Your task to perform on an android device: star an email in the gmail app Image 0: 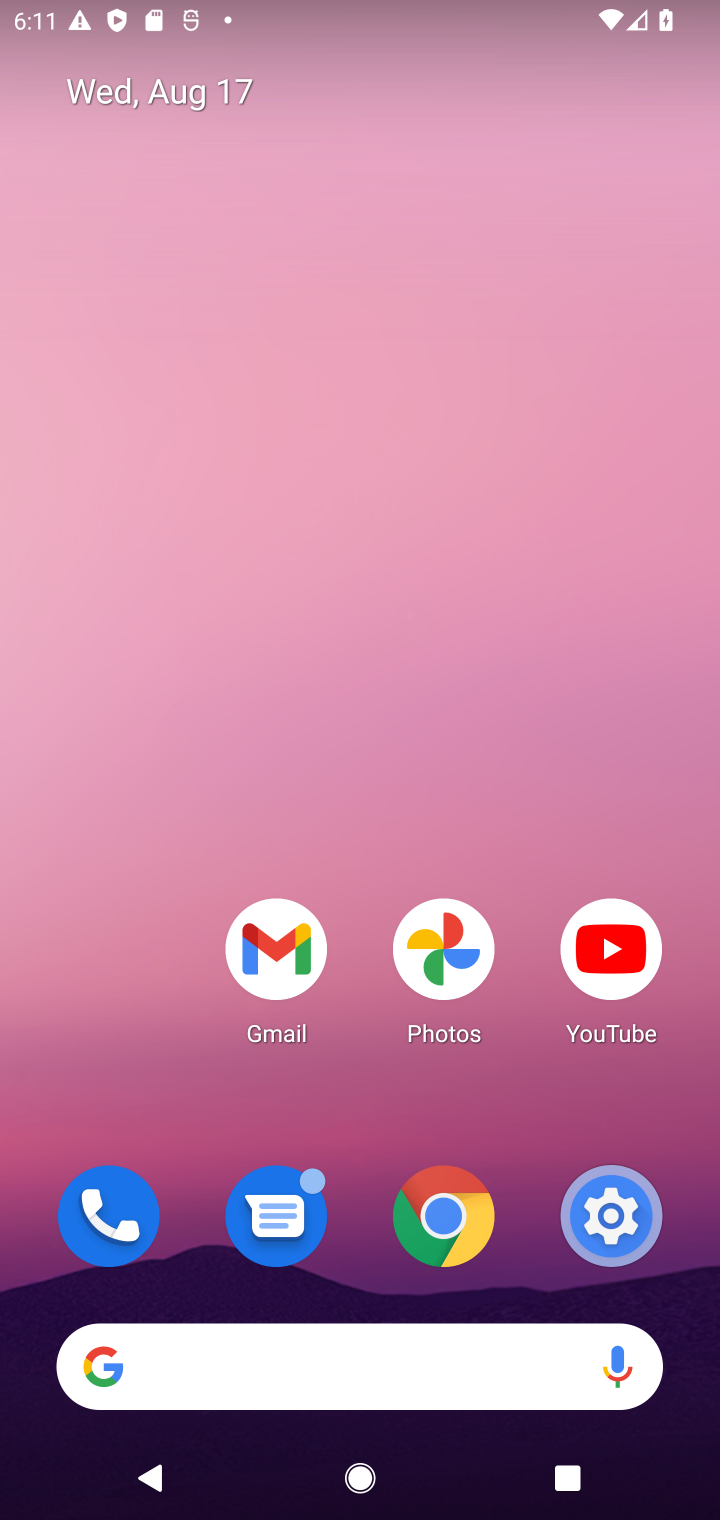
Step 0: drag from (506, 1260) to (578, 12)
Your task to perform on an android device: star an email in the gmail app Image 1: 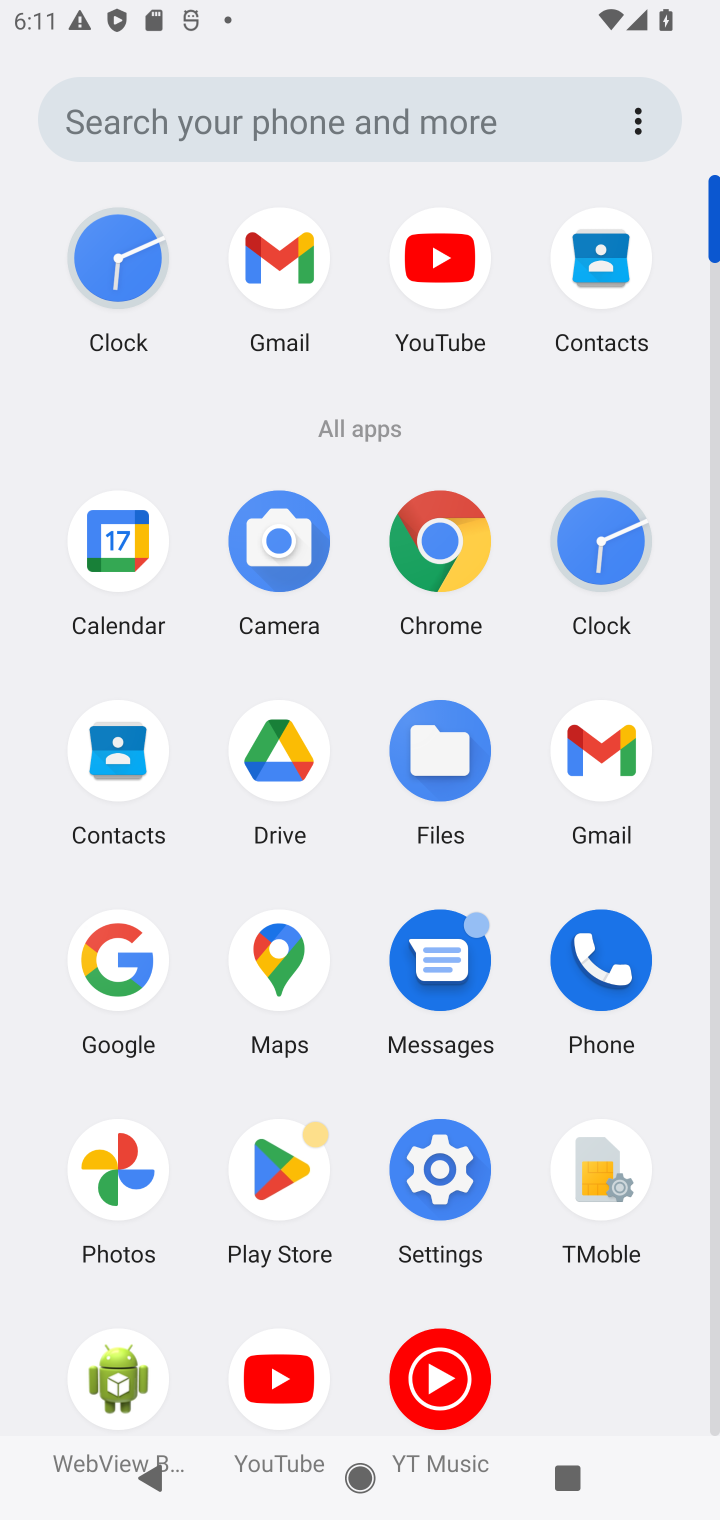
Step 1: click (615, 735)
Your task to perform on an android device: star an email in the gmail app Image 2: 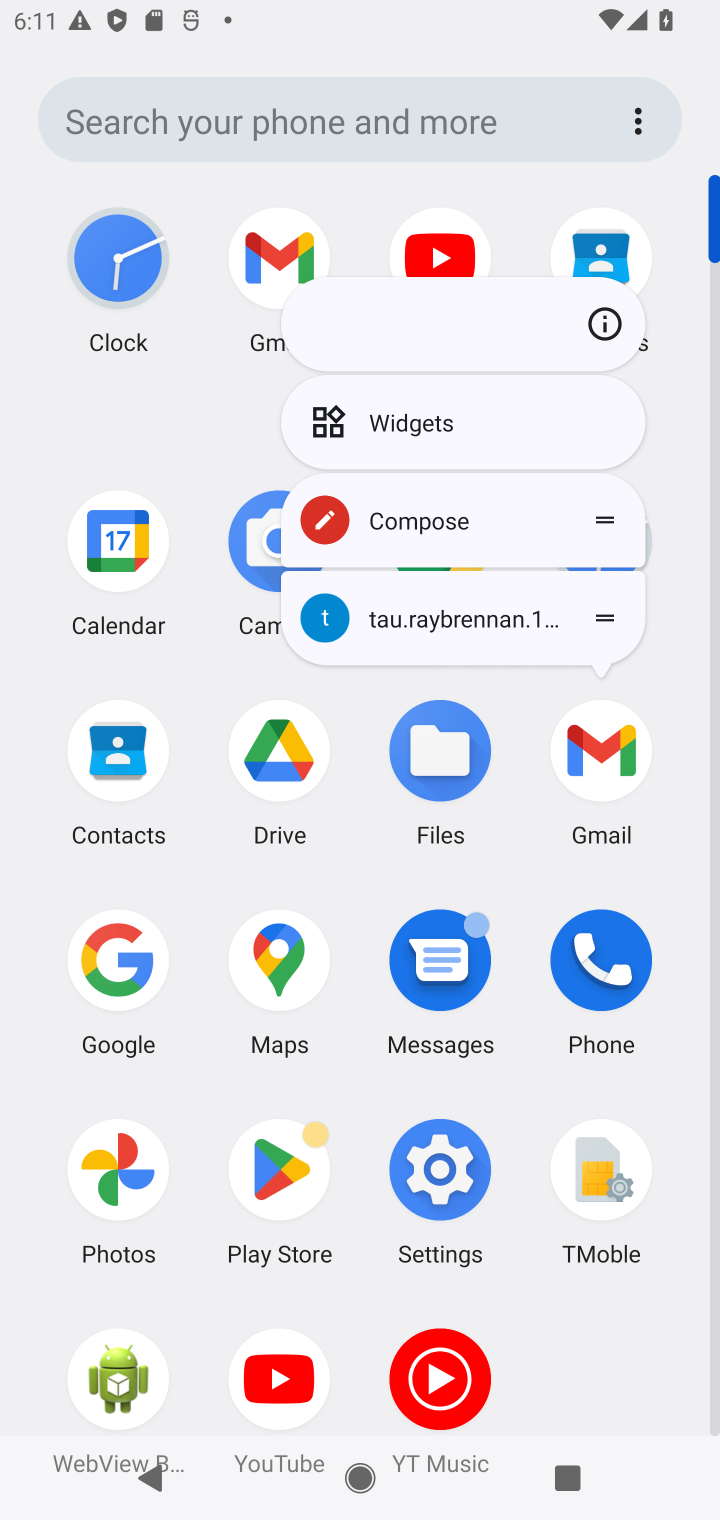
Step 2: click (609, 761)
Your task to perform on an android device: star an email in the gmail app Image 3: 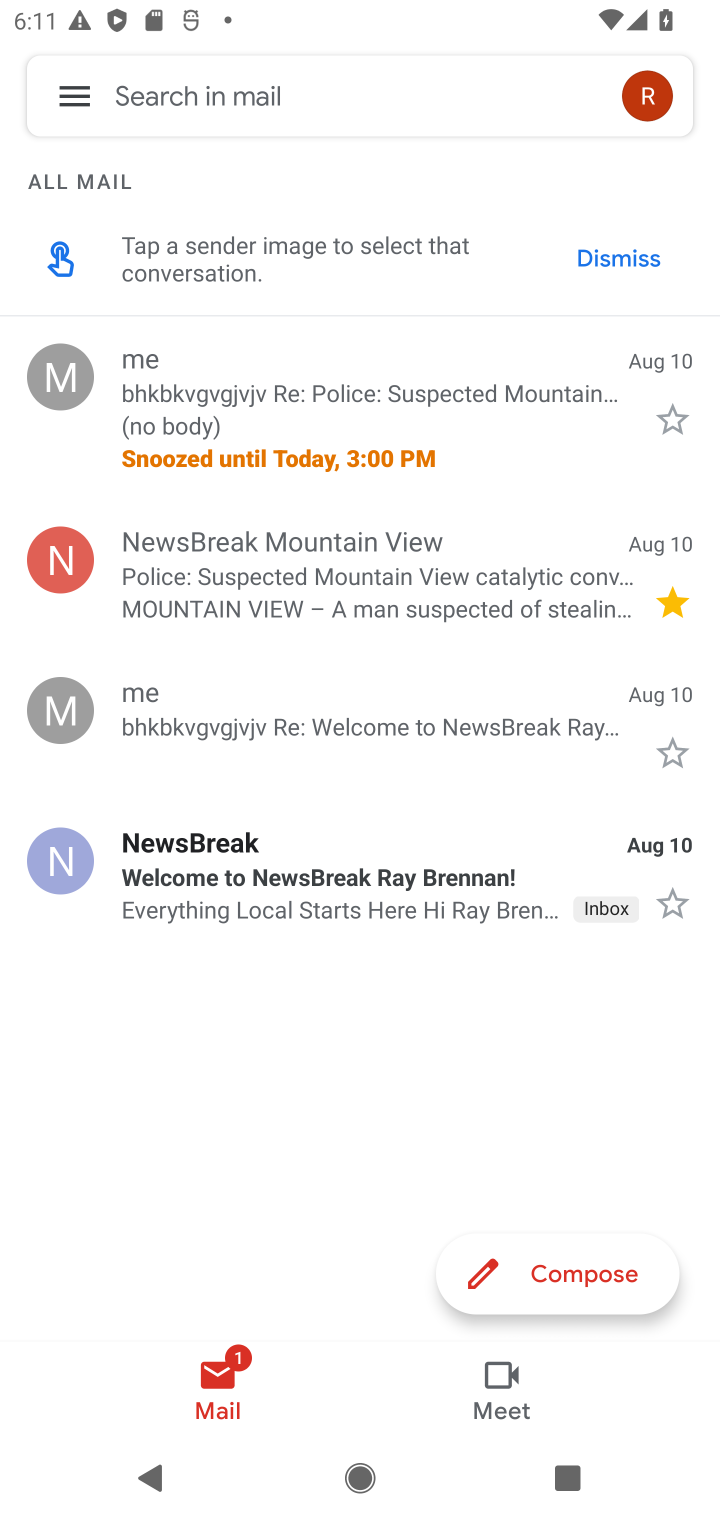
Step 3: click (72, 117)
Your task to perform on an android device: star an email in the gmail app Image 4: 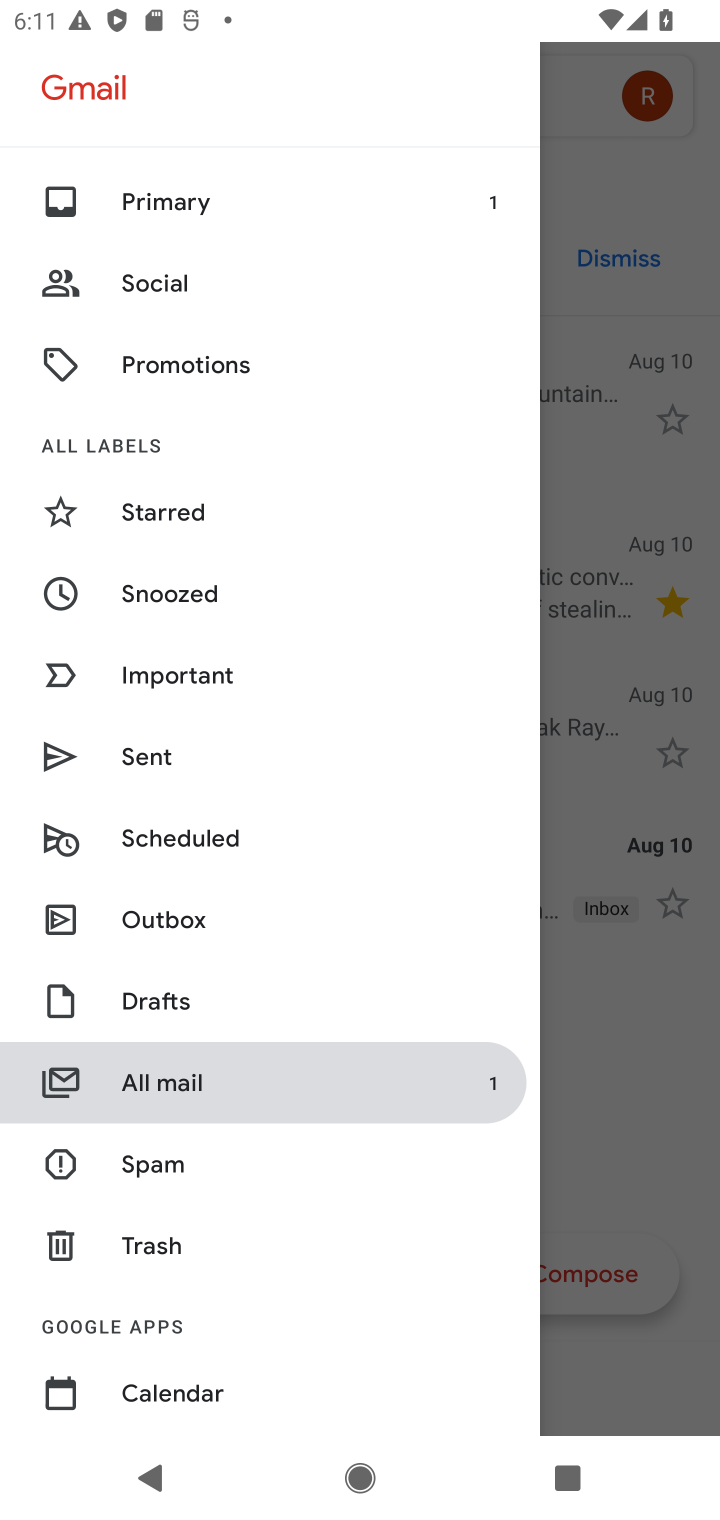
Step 4: click (137, 1079)
Your task to perform on an android device: star an email in the gmail app Image 5: 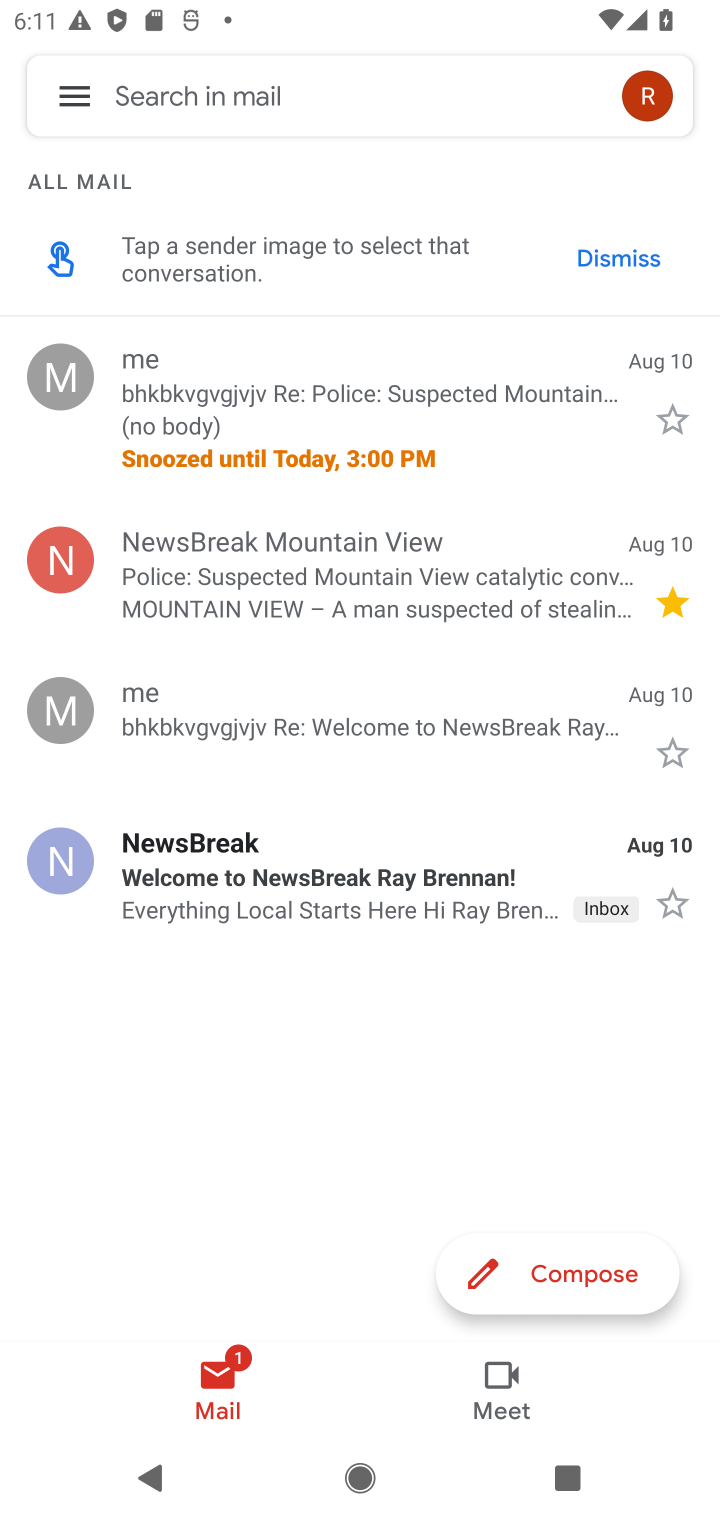
Step 5: click (671, 416)
Your task to perform on an android device: star an email in the gmail app Image 6: 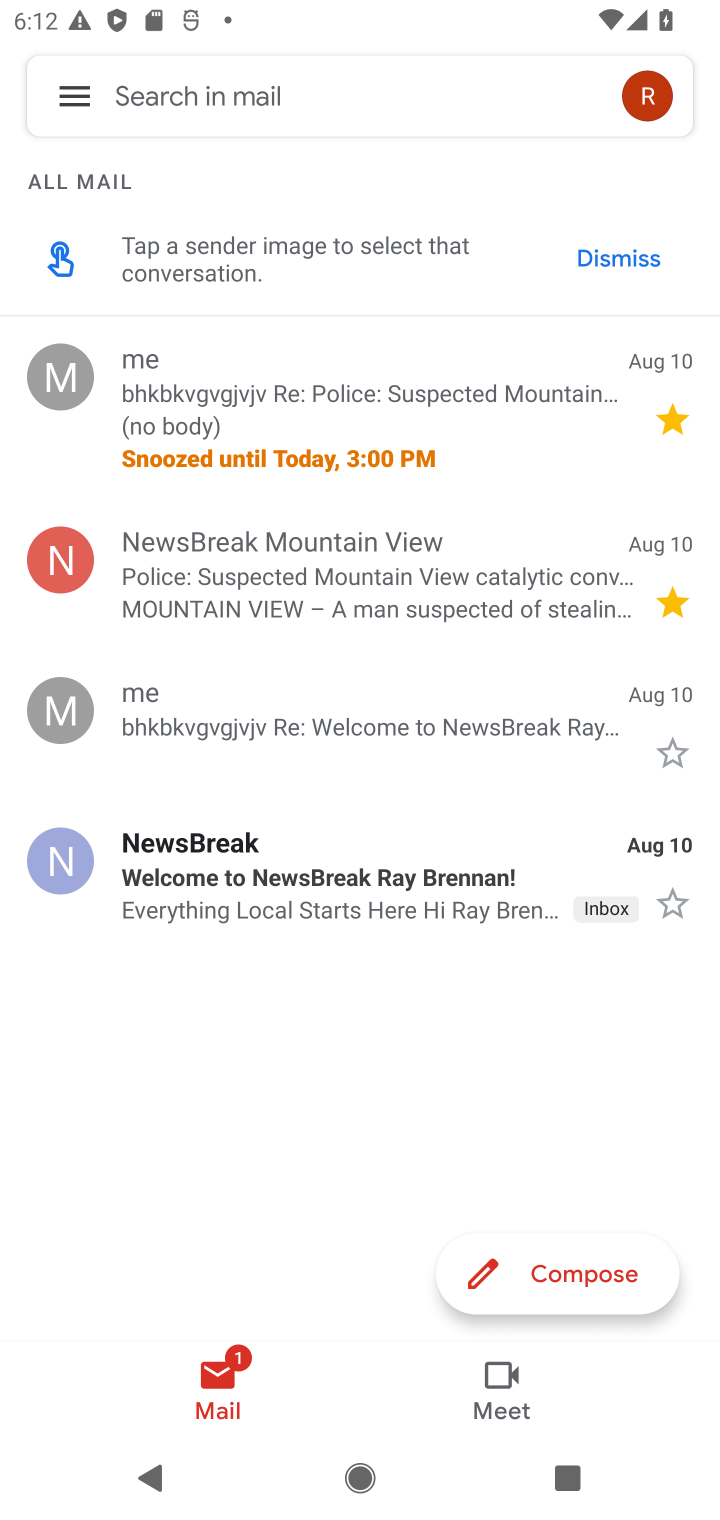
Step 6: click (673, 748)
Your task to perform on an android device: star an email in the gmail app Image 7: 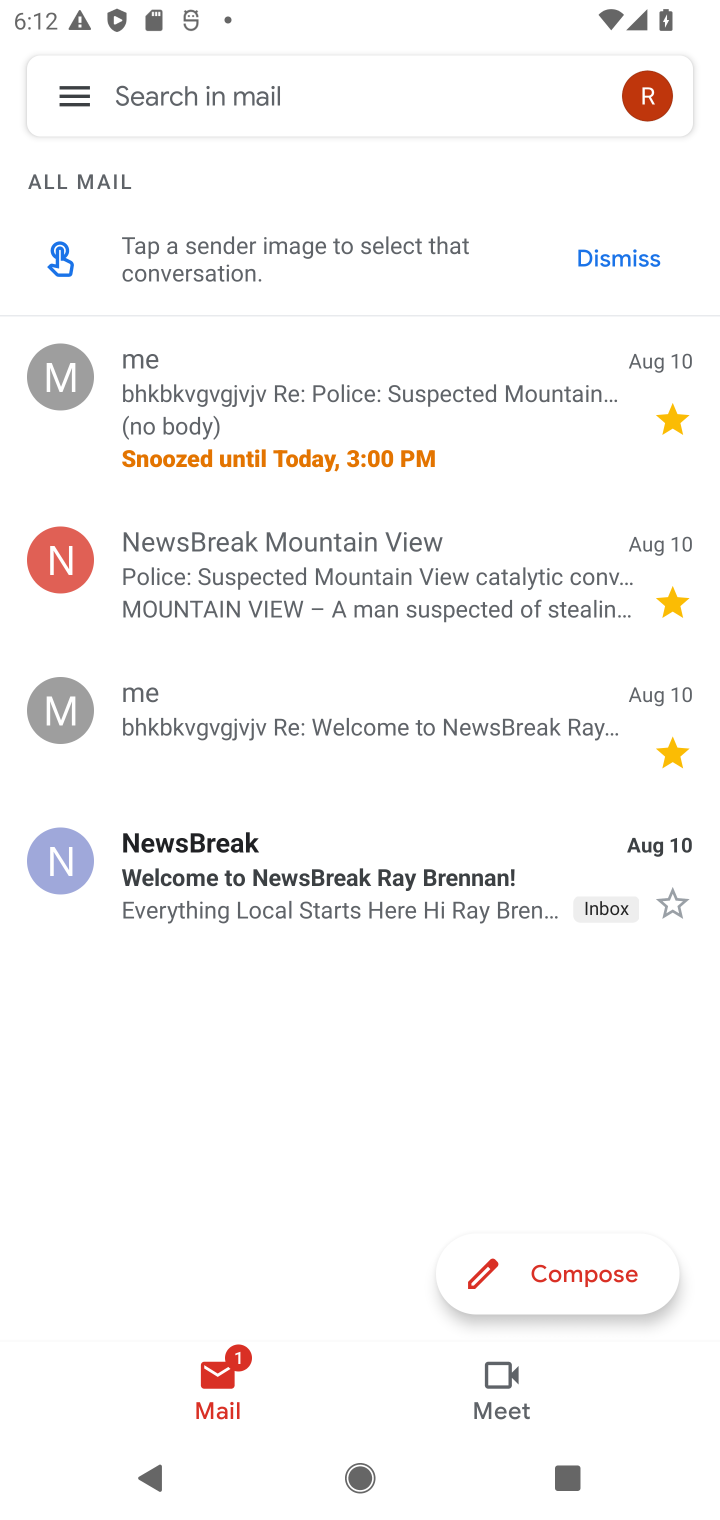
Step 7: click (672, 897)
Your task to perform on an android device: star an email in the gmail app Image 8: 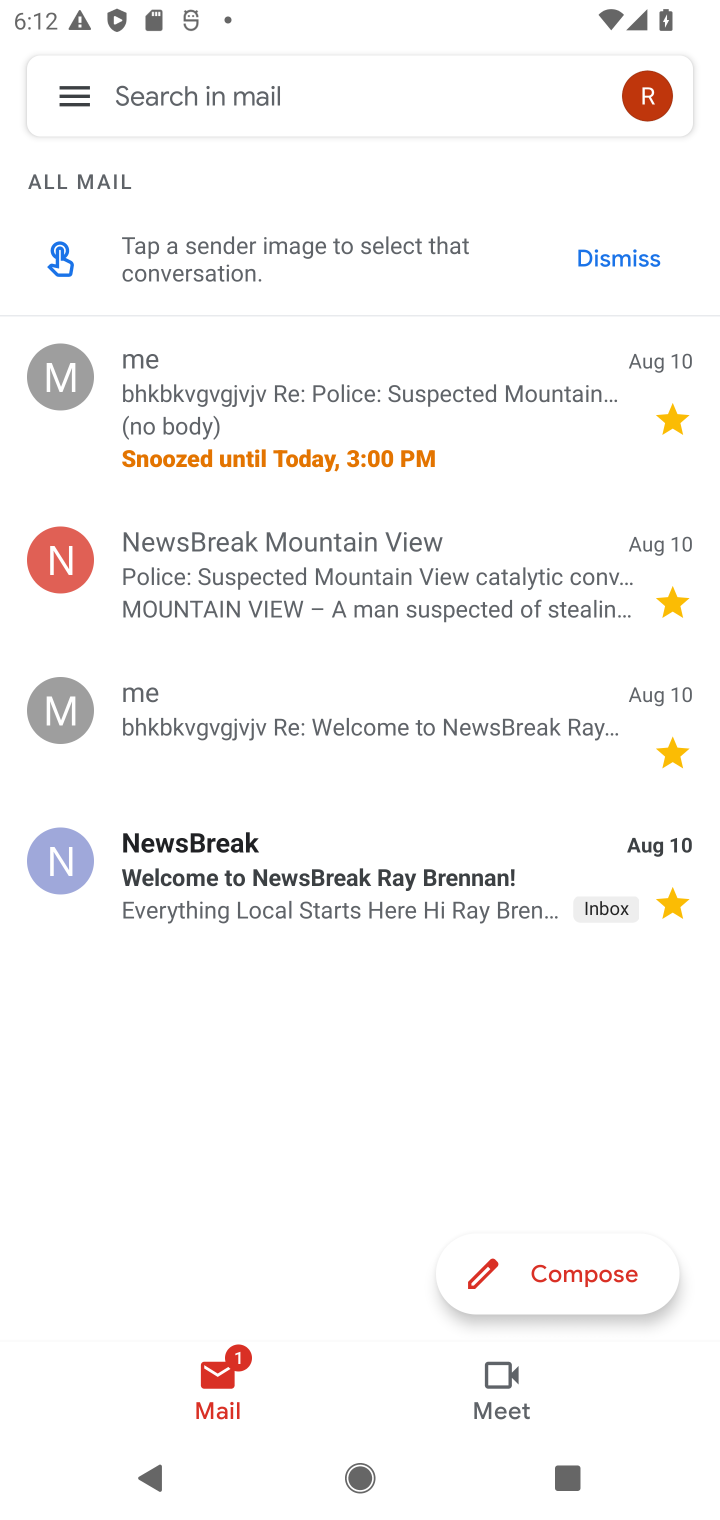
Step 8: task complete